Your task to perform on an android device: visit the assistant section in the google photos Image 0: 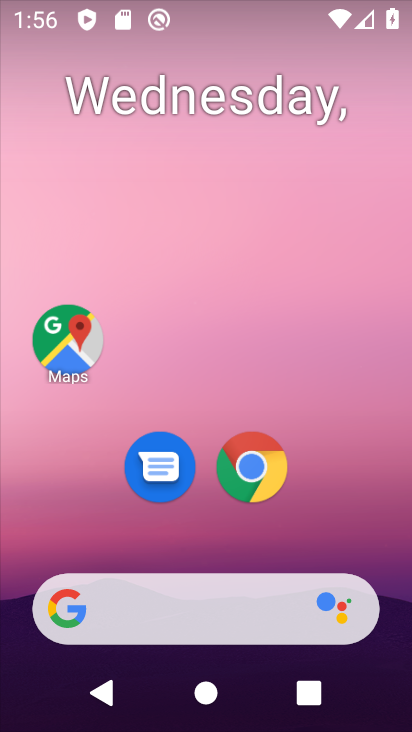
Step 0: drag from (323, 522) to (328, 8)
Your task to perform on an android device: visit the assistant section in the google photos Image 1: 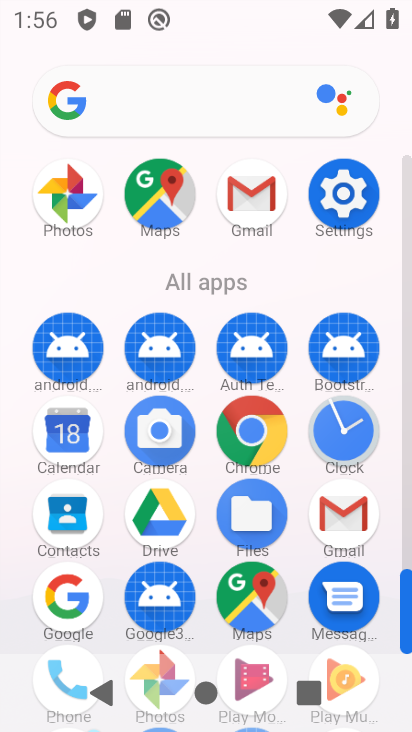
Step 1: drag from (202, 569) to (157, 176)
Your task to perform on an android device: visit the assistant section in the google photos Image 2: 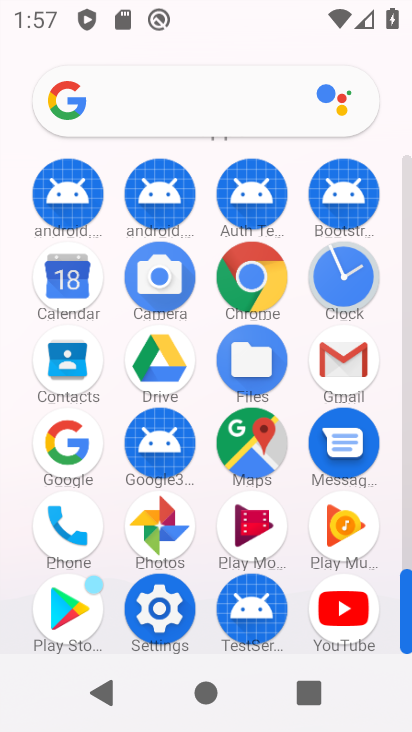
Step 2: click (141, 540)
Your task to perform on an android device: visit the assistant section in the google photos Image 3: 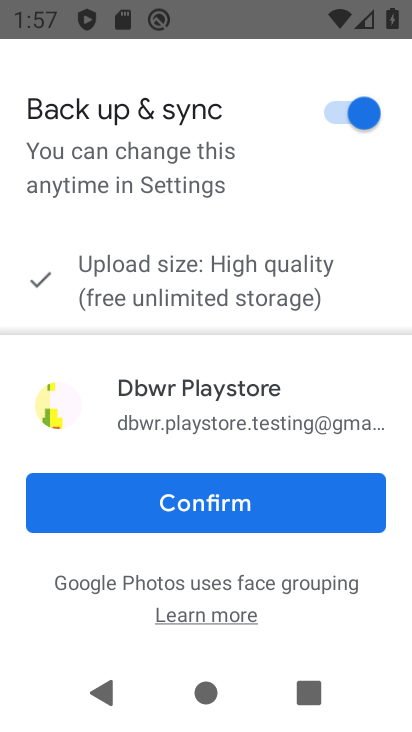
Step 3: click (205, 521)
Your task to perform on an android device: visit the assistant section in the google photos Image 4: 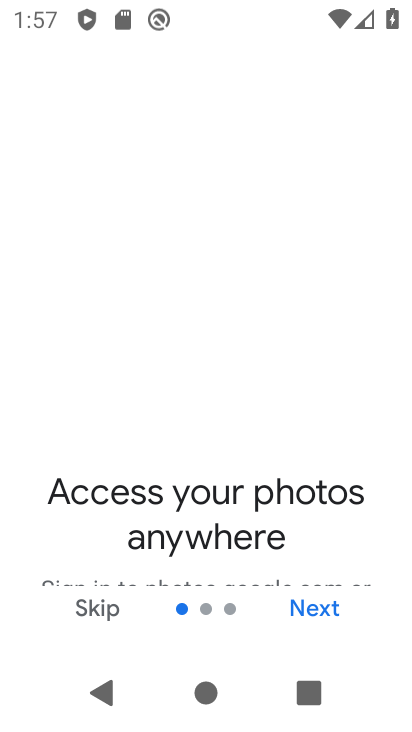
Step 4: click (295, 608)
Your task to perform on an android device: visit the assistant section in the google photos Image 5: 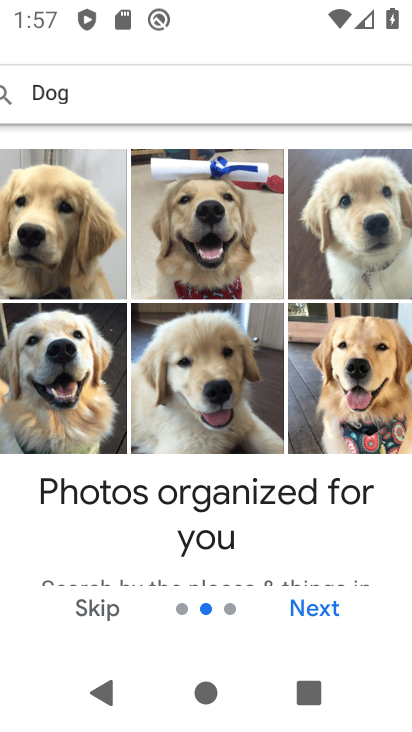
Step 5: click (318, 622)
Your task to perform on an android device: visit the assistant section in the google photos Image 6: 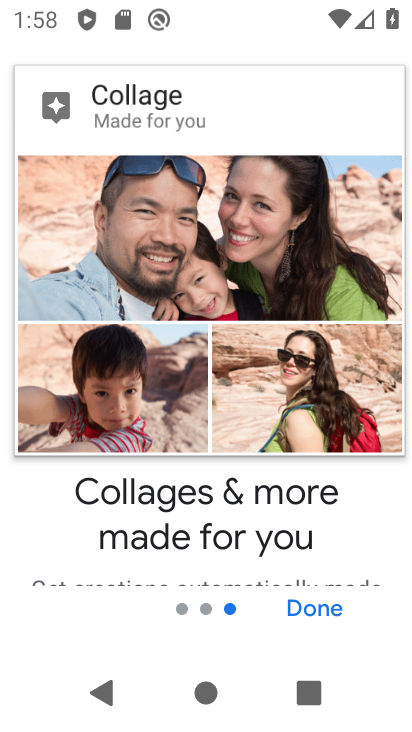
Step 6: click (322, 615)
Your task to perform on an android device: visit the assistant section in the google photos Image 7: 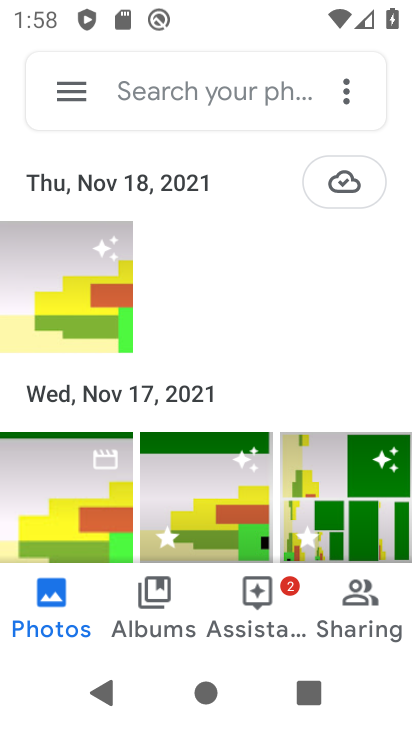
Step 7: click (274, 618)
Your task to perform on an android device: visit the assistant section in the google photos Image 8: 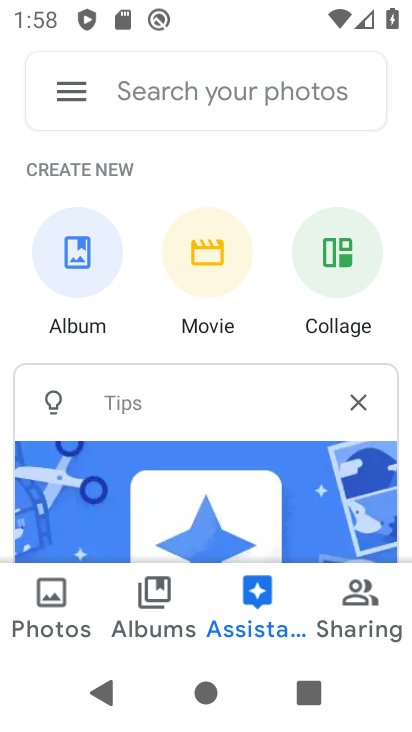
Step 8: task complete